Your task to perform on an android device: toggle show notifications on the lock screen Image 0: 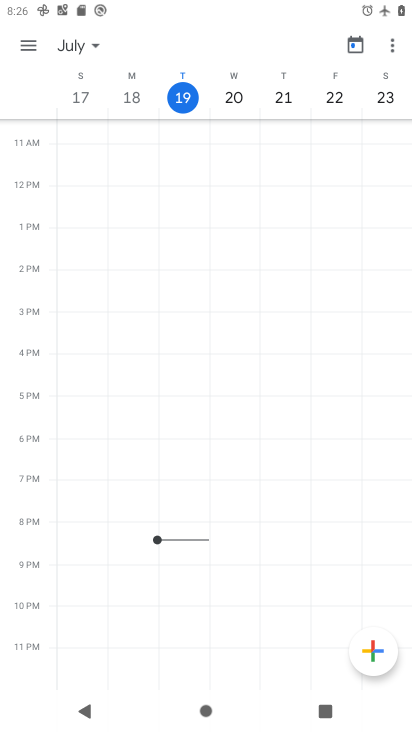
Step 0: press home button
Your task to perform on an android device: toggle show notifications on the lock screen Image 1: 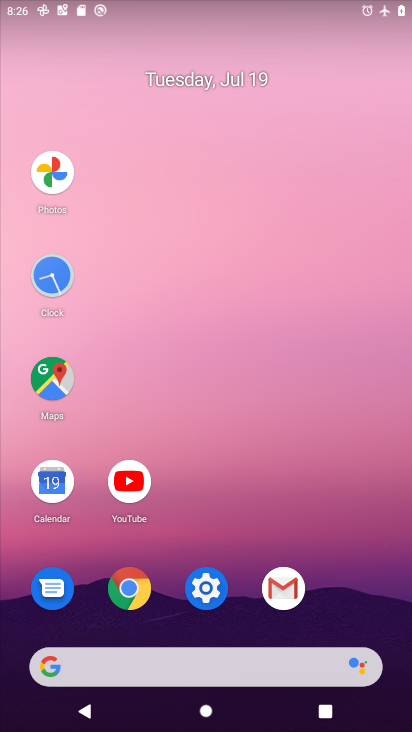
Step 1: click (208, 588)
Your task to perform on an android device: toggle show notifications on the lock screen Image 2: 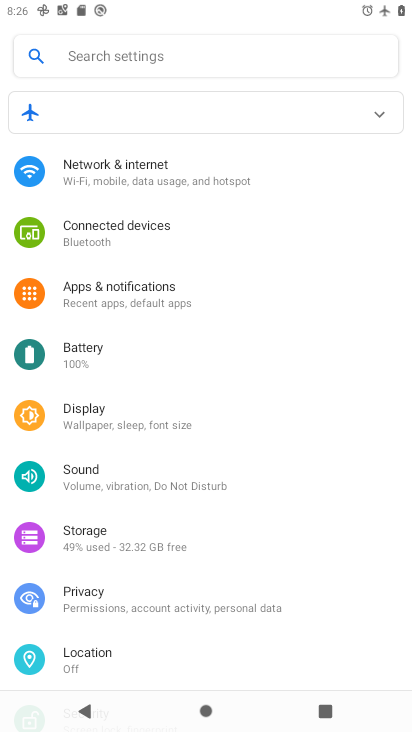
Step 2: click (114, 286)
Your task to perform on an android device: toggle show notifications on the lock screen Image 3: 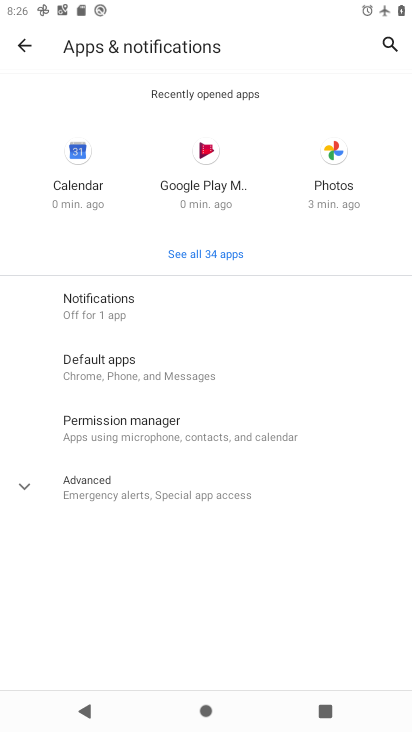
Step 3: click (106, 293)
Your task to perform on an android device: toggle show notifications on the lock screen Image 4: 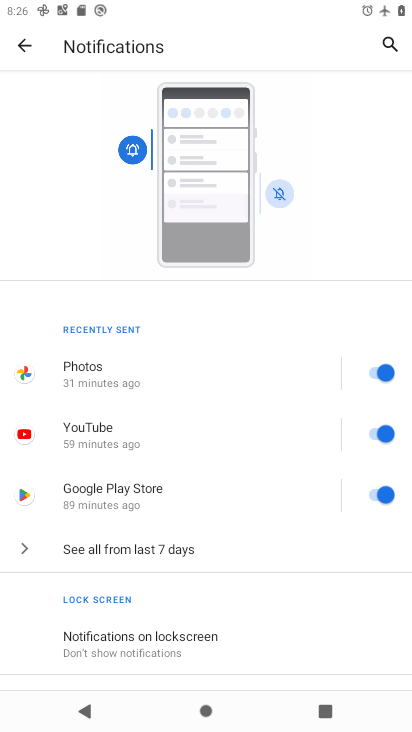
Step 4: click (158, 632)
Your task to perform on an android device: toggle show notifications on the lock screen Image 5: 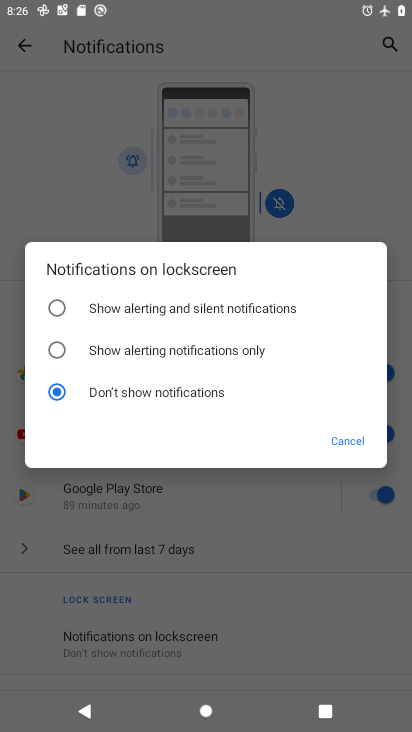
Step 5: click (54, 312)
Your task to perform on an android device: toggle show notifications on the lock screen Image 6: 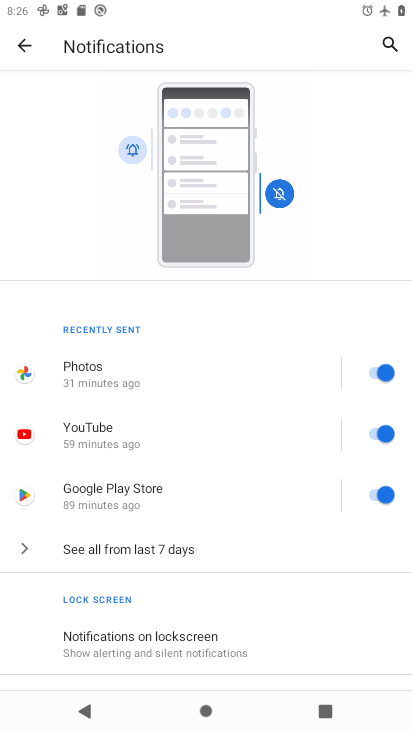
Step 6: task complete